Your task to perform on an android device: Check the settings for the Google Photos app Image 0: 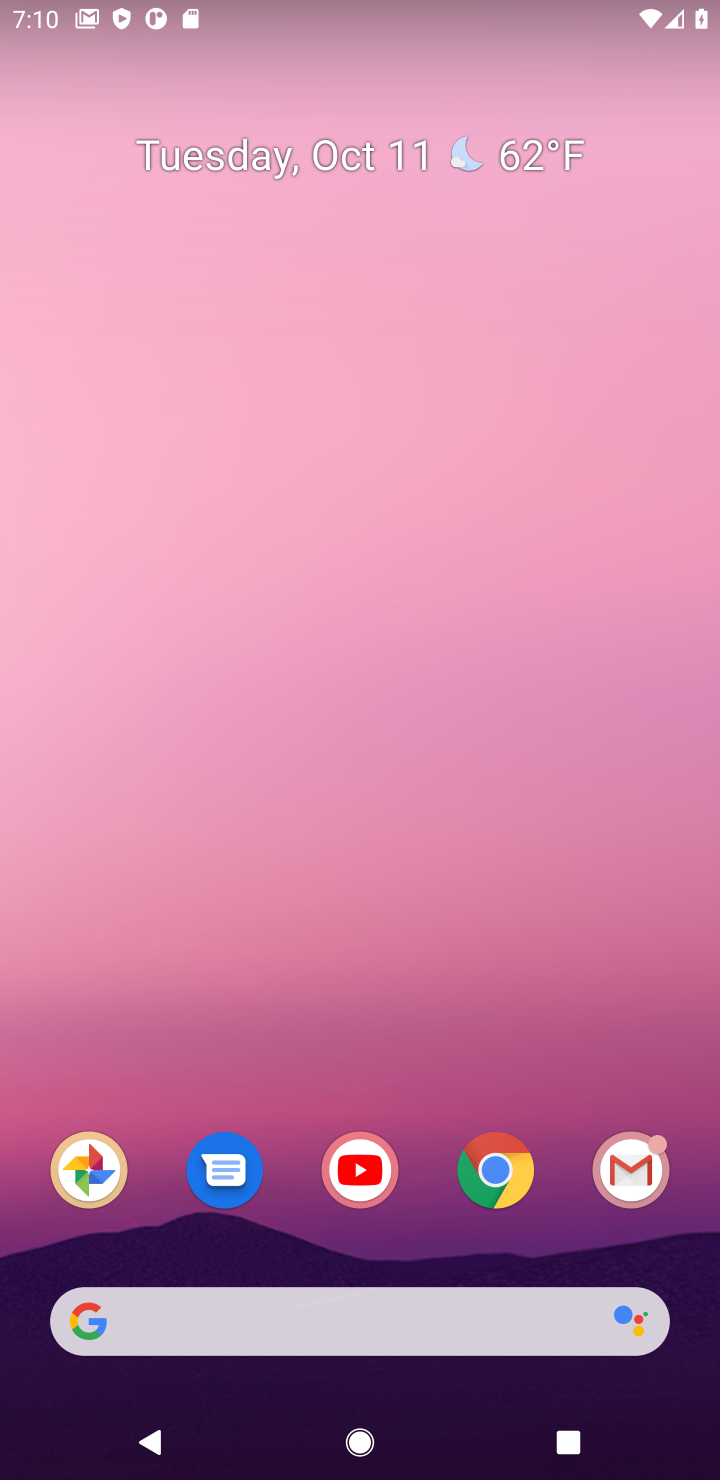
Step 0: drag from (374, 1393) to (395, 554)
Your task to perform on an android device: Check the settings for the Google Photos app Image 1: 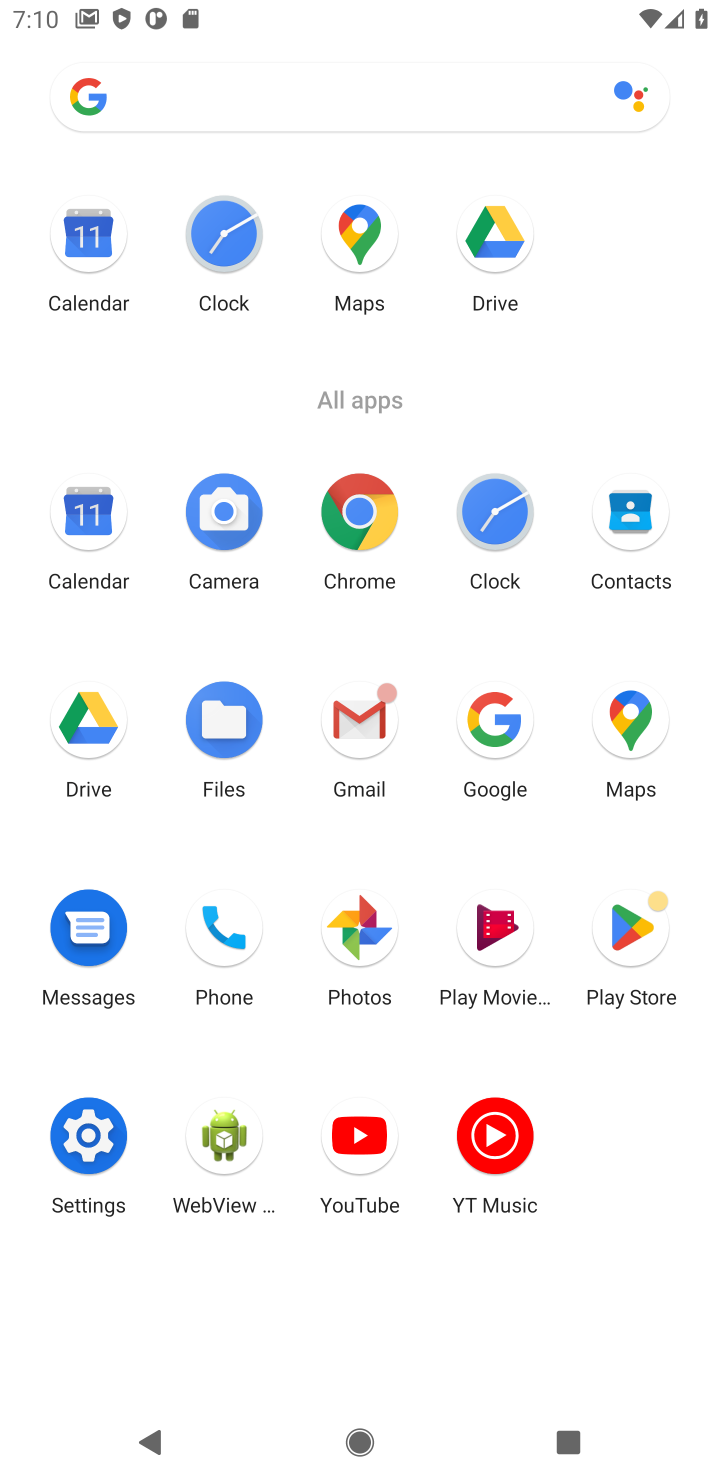
Step 1: click (375, 920)
Your task to perform on an android device: Check the settings for the Google Photos app Image 2: 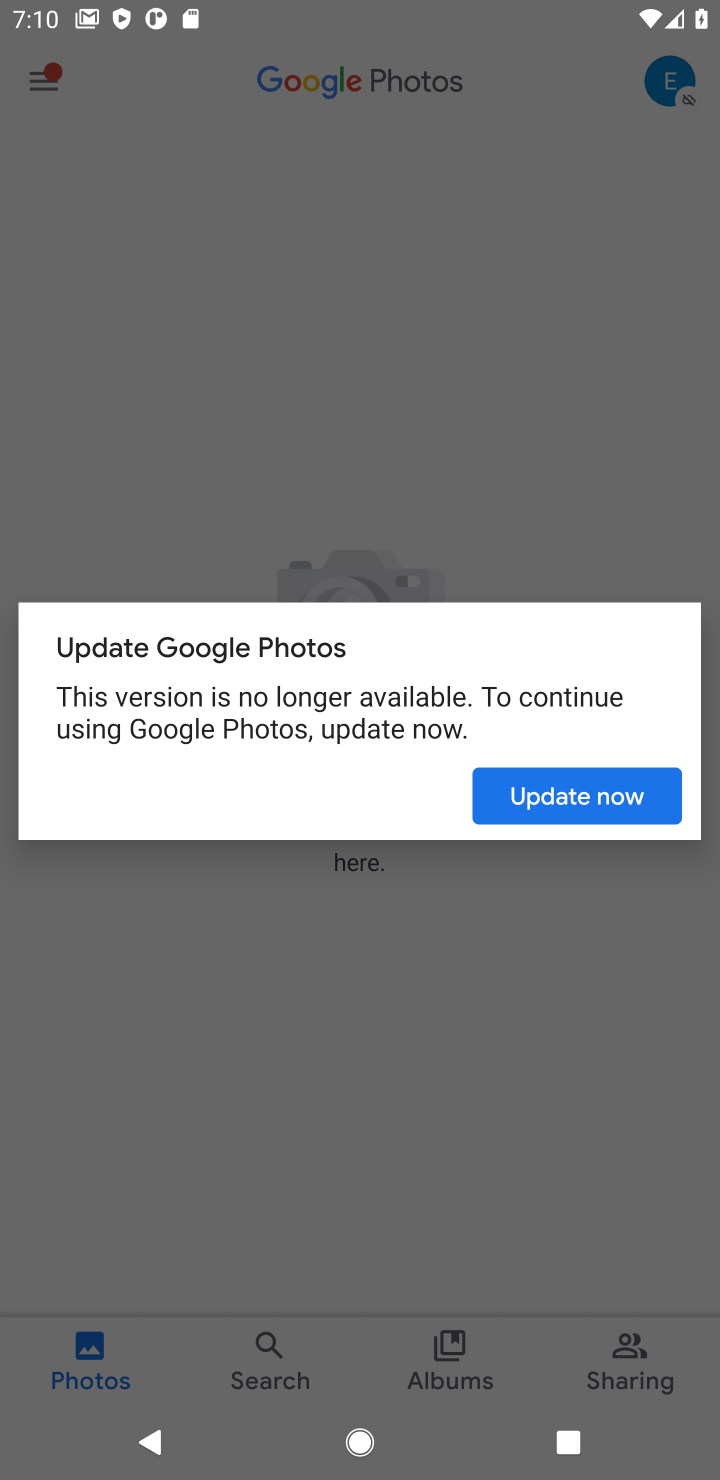
Step 2: click (597, 779)
Your task to perform on an android device: Check the settings for the Google Photos app Image 3: 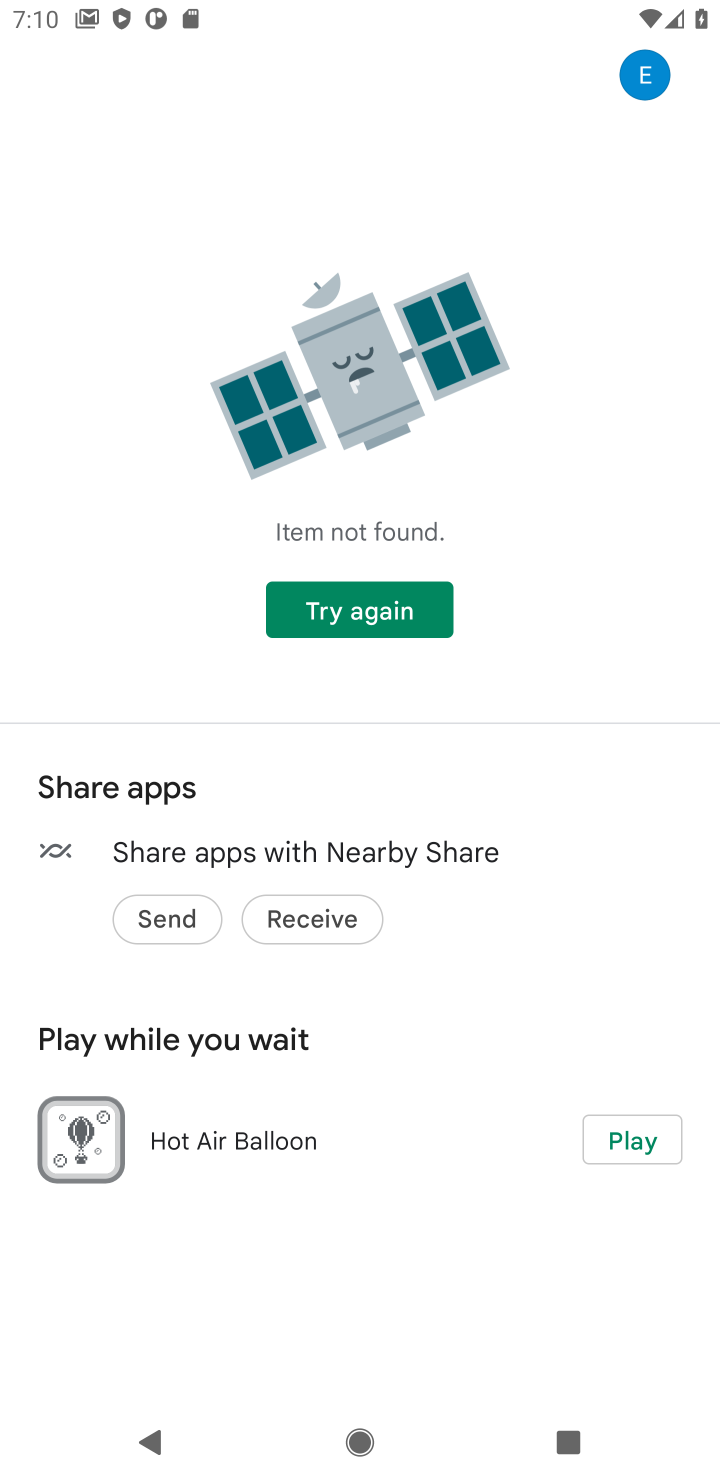
Step 3: press back button
Your task to perform on an android device: Check the settings for the Google Photos app Image 4: 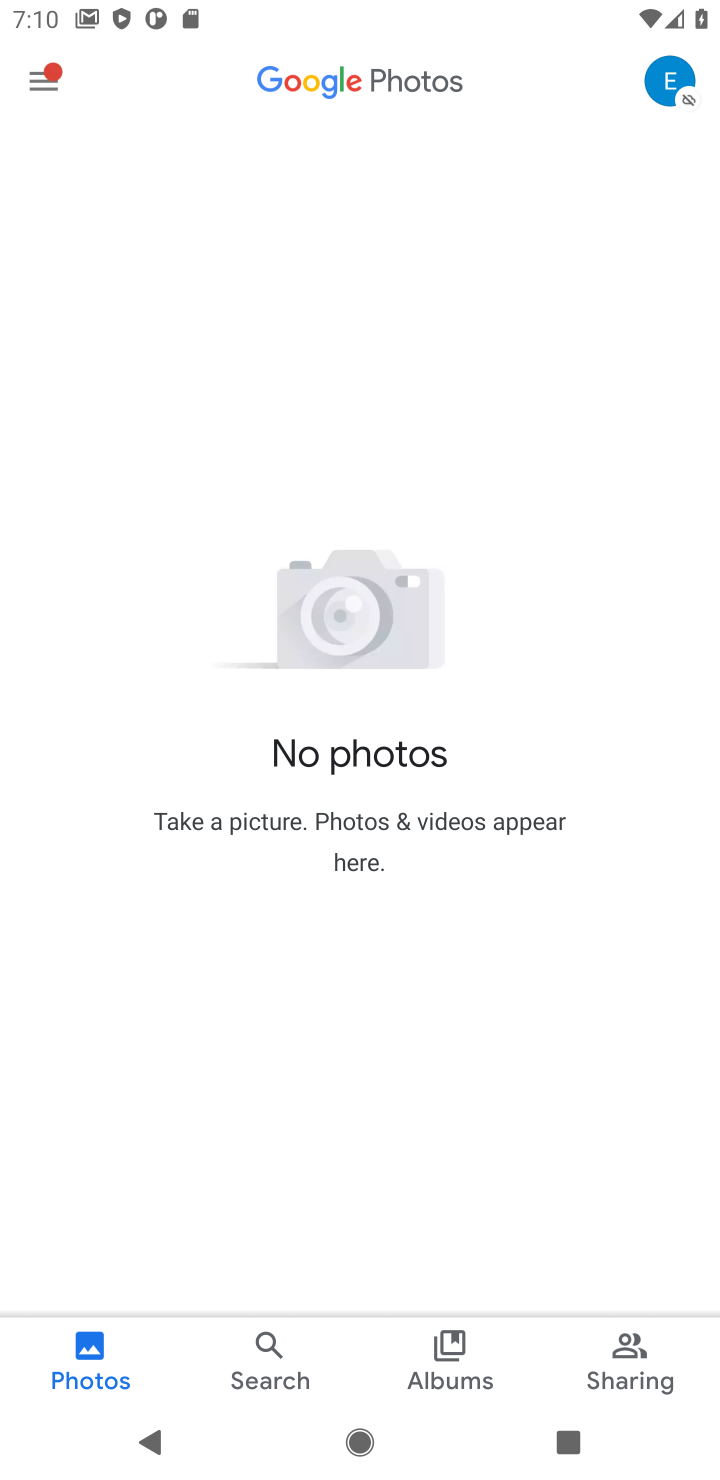
Step 4: click (44, 81)
Your task to perform on an android device: Check the settings for the Google Photos app Image 5: 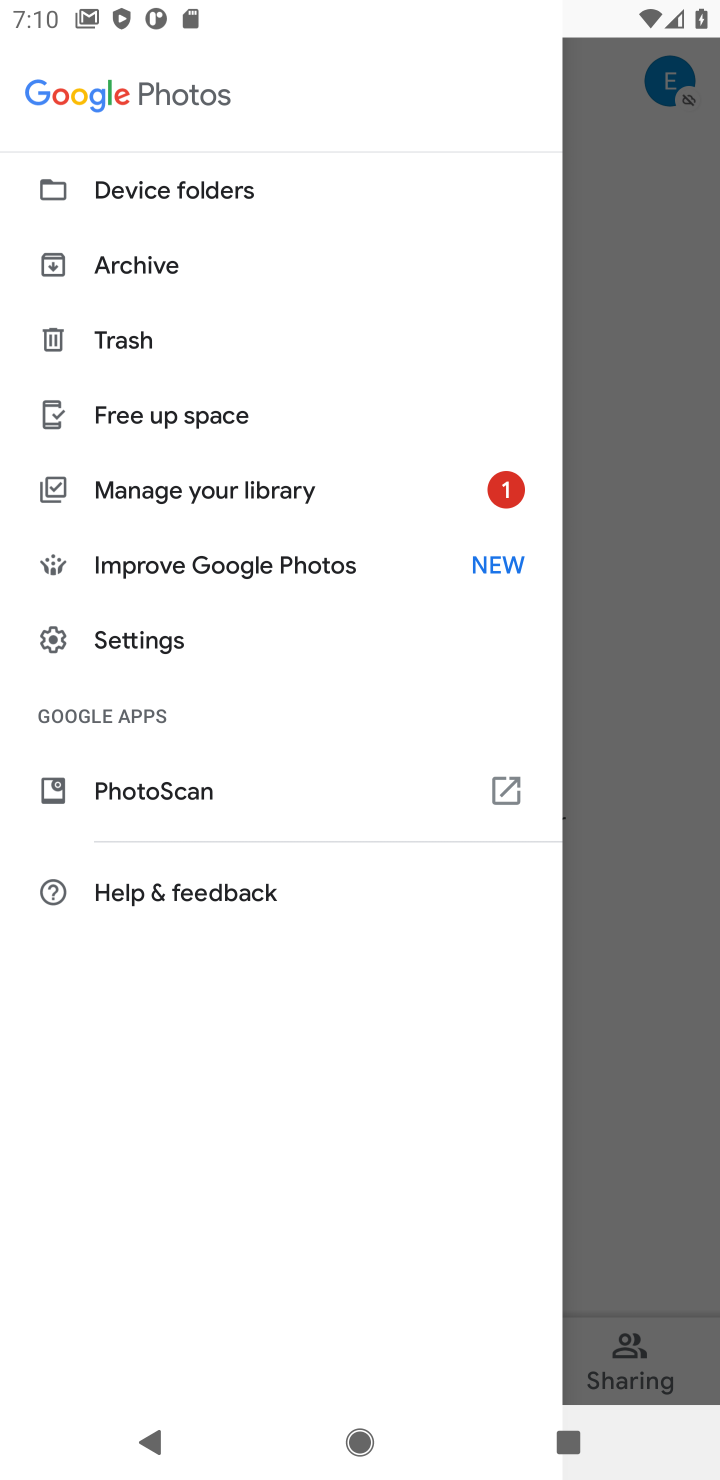
Step 5: click (276, 627)
Your task to perform on an android device: Check the settings for the Google Photos app Image 6: 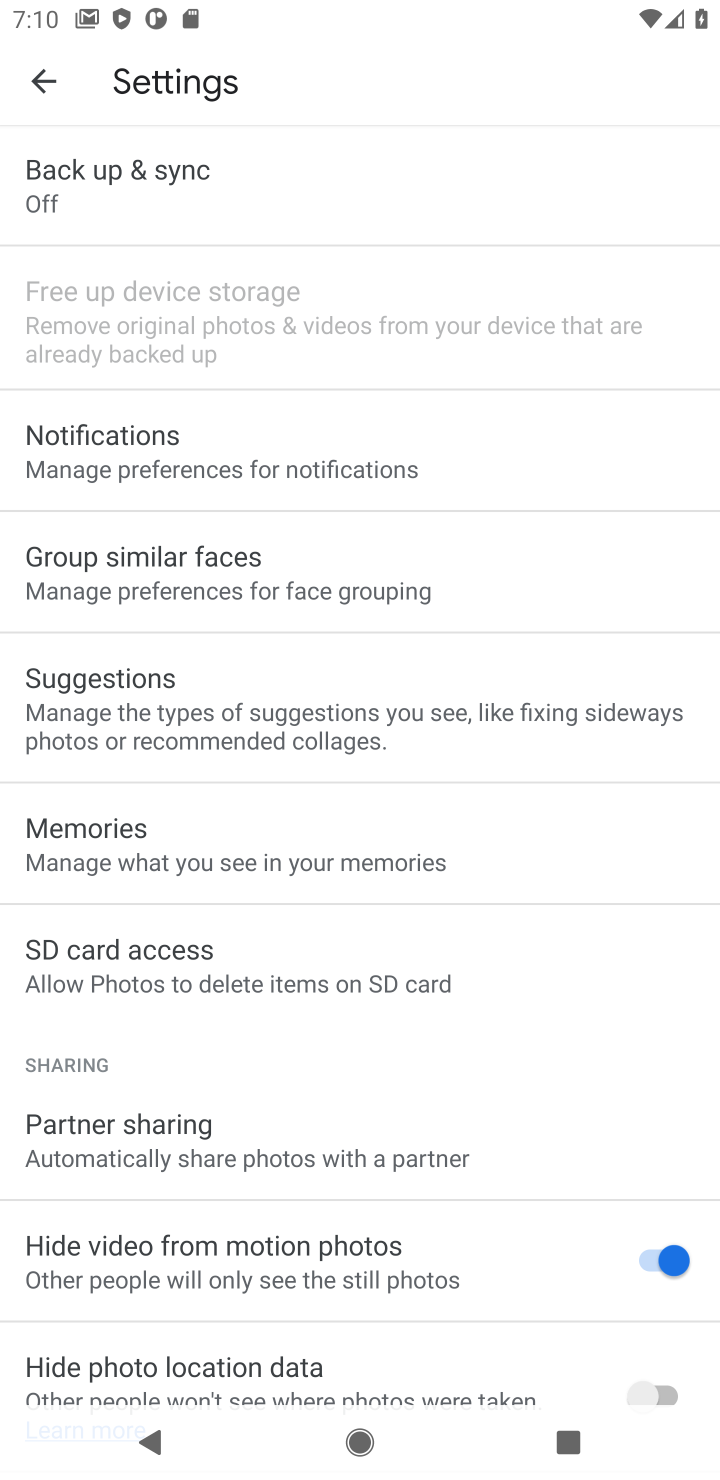
Step 6: task complete